Your task to perform on an android device: Open notification settings Image 0: 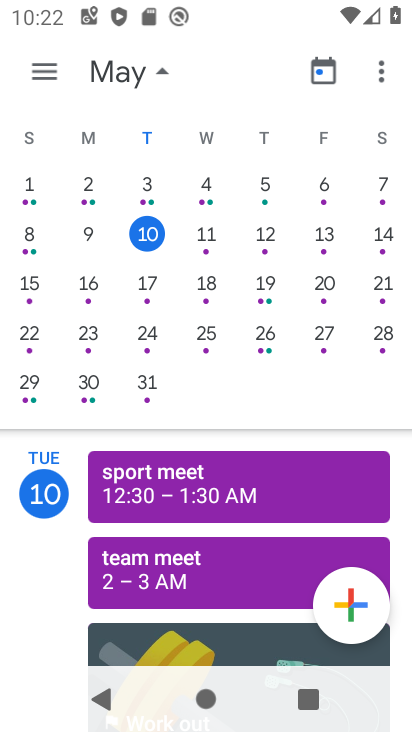
Step 0: press home button
Your task to perform on an android device: Open notification settings Image 1: 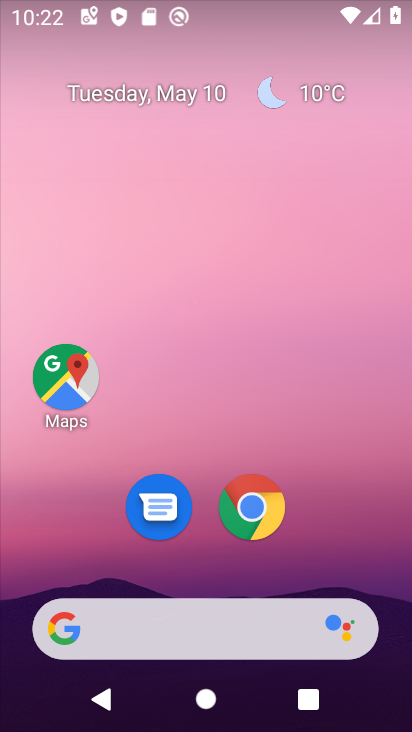
Step 1: drag from (321, 541) to (338, 158)
Your task to perform on an android device: Open notification settings Image 2: 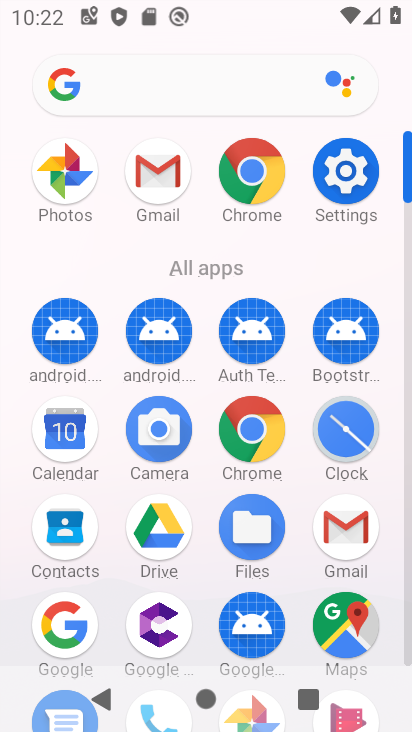
Step 2: click (334, 188)
Your task to perform on an android device: Open notification settings Image 3: 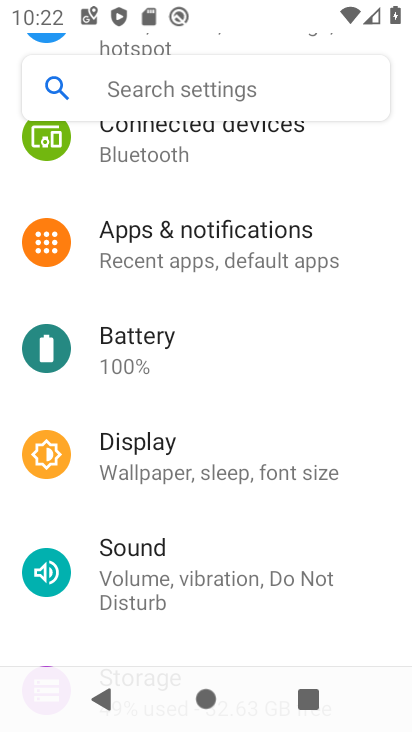
Step 3: drag from (285, 212) to (291, 466)
Your task to perform on an android device: Open notification settings Image 4: 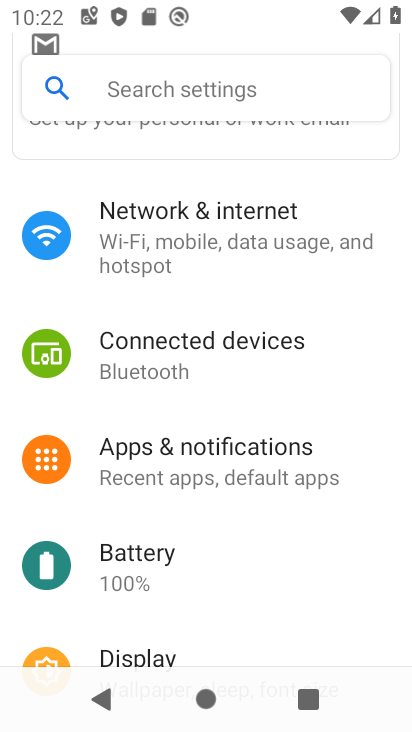
Step 4: click (284, 482)
Your task to perform on an android device: Open notification settings Image 5: 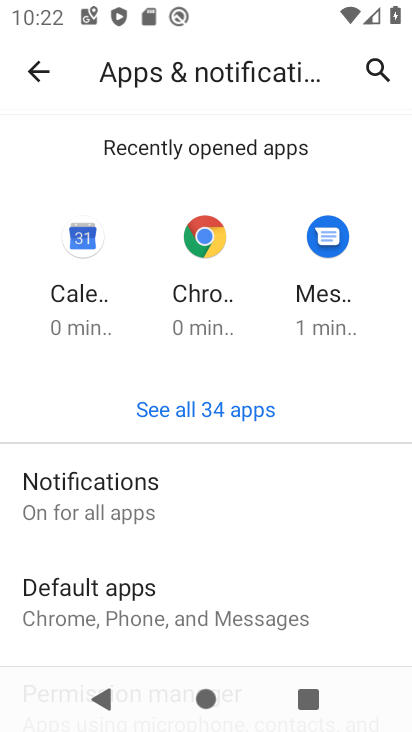
Step 5: click (160, 500)
Your task to perform on an android device: Open notification settings Image 6: 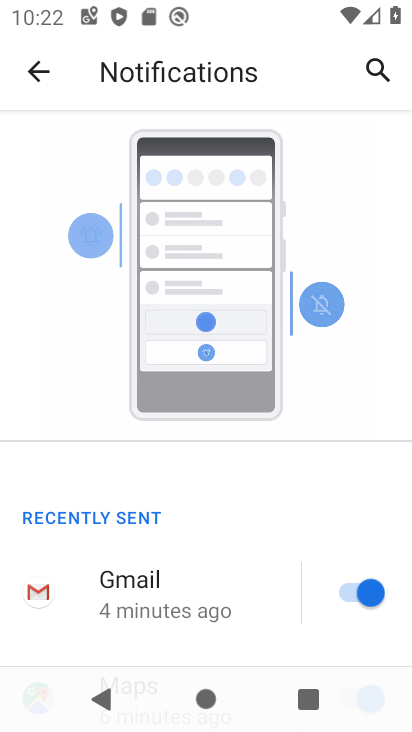
Step 6: task complete